Your task to perform on an android device: Search for Italian restaurants on Maps Image 0: 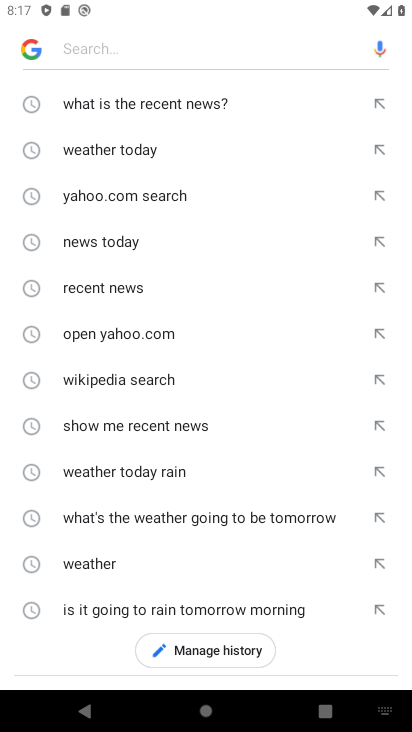
Step 0: press home button
Your task to perform on an android device: Search for Italian restaurants on Maps Image 1: 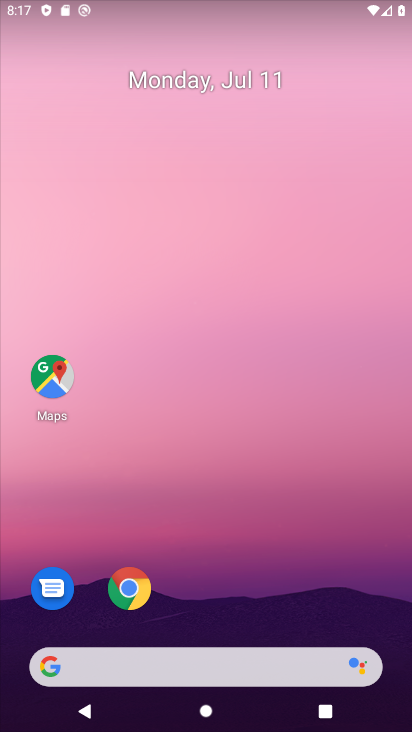
Step 1: click (51, 379)
Your task to perform on an android device: Search for Italian restaurants on Maps Image 2: 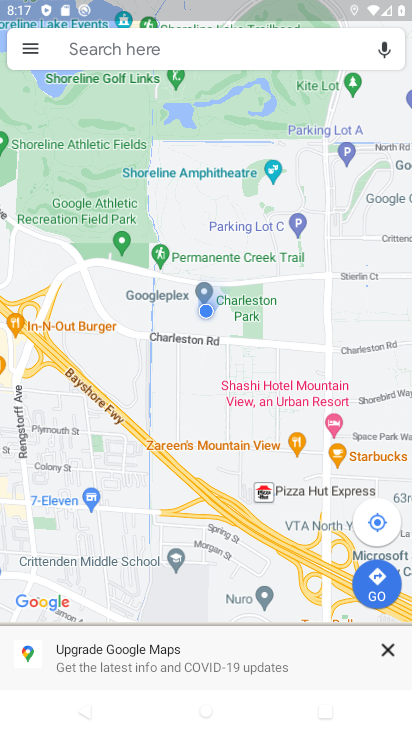
Step 2: click (139, 56)
Your task to perform on an android device: Search for Italian restaurants on Maps Image 3: 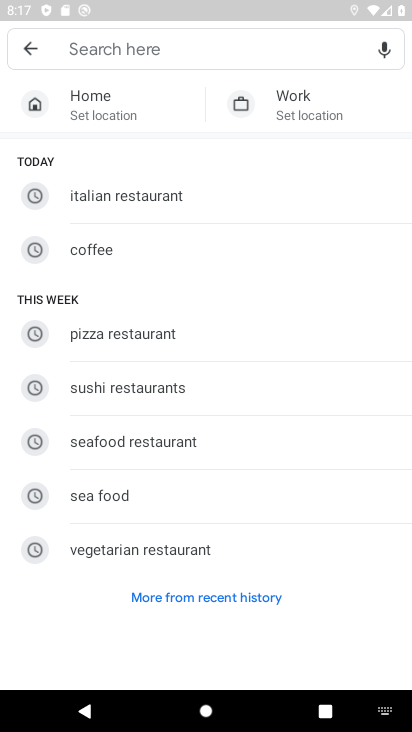
Step 3: type "italian restaurants"
Your task to perform on an android device: Search for Italian restaurants on Maps Image 4: 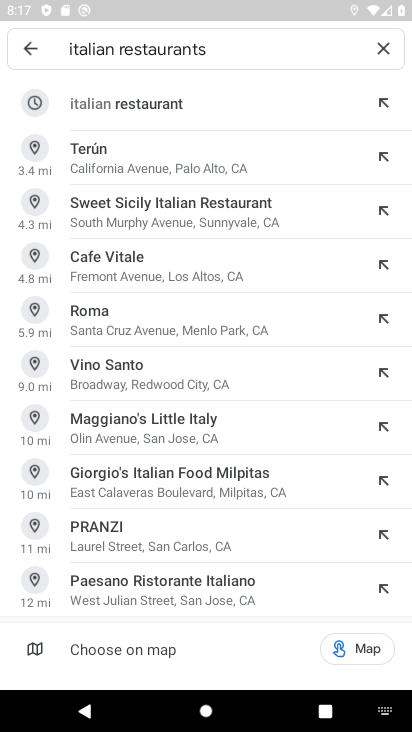
Step 4: click (225, 91)
Your task to perform on an android device: Search for Italian restaurants on Maps Image 5: 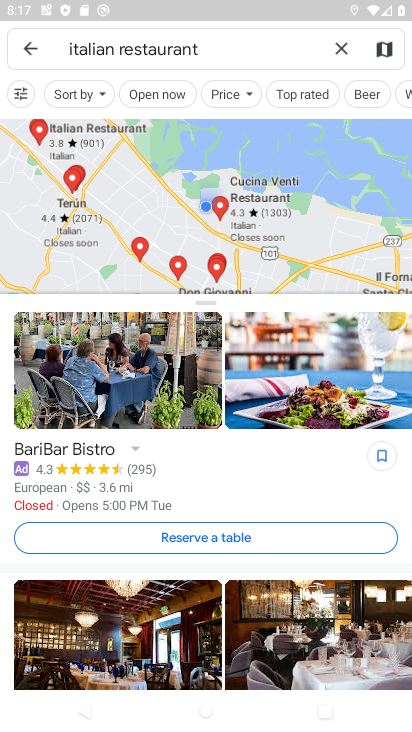
Step 5: task complete